Your task to perform on an android device: visit the assistant section in the google photos Image 0: 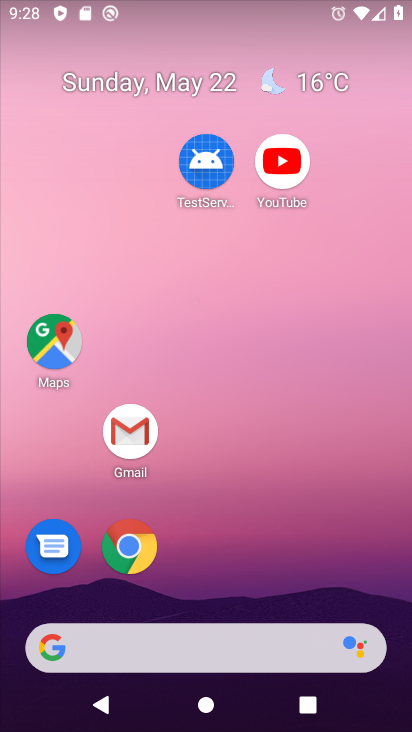
Step 0: click (184, 251)
Your task to perform on an android device: visit the assistant section in the google photos Image 1: 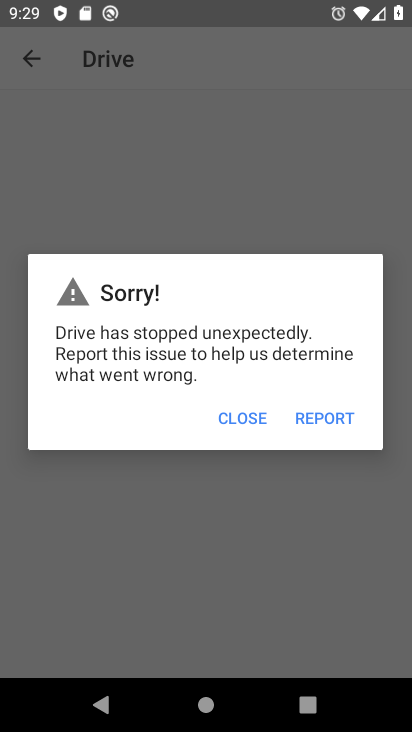
Step 1: click (238, 411)
Your task to perform on an android device: visit the assistant section in the google photos Image 2: 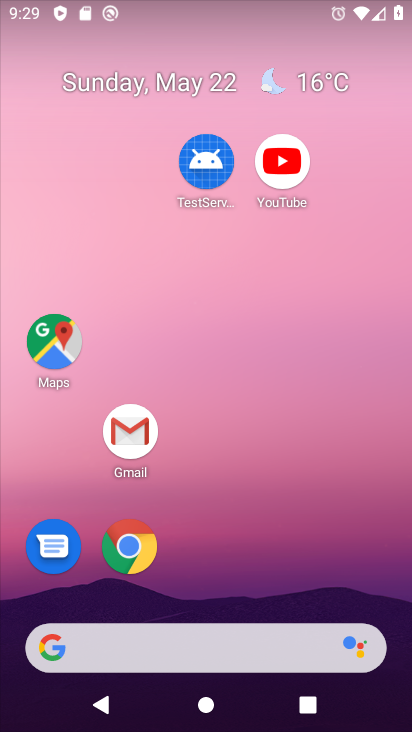
Step 2: drag from (275, 695) to (244, 133)
Your task to perform on an android device: visit the assistant section in the google photos Image 3: 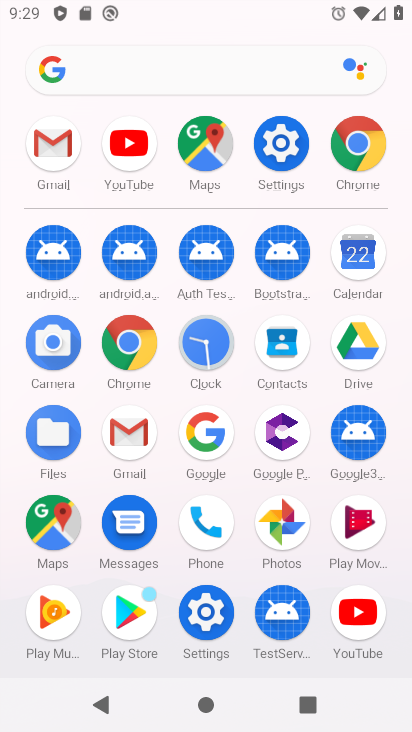
Step 3: click (283, 524)
Your task to perform on an android device: visit the assistant section in the google photos Image 4: 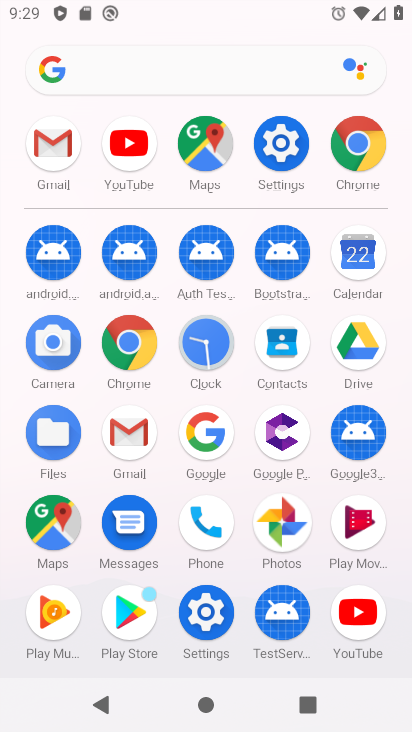
Step 4: click (283, 524)
Your task to perform on an android device: visit the assistant section in the google photos Image 5: 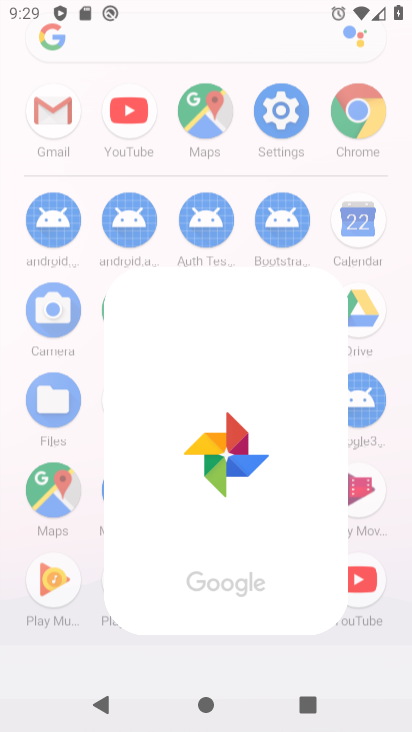
Step 5: click (283, 524)
Your task to perform on an android device: visit the assistant section in the google photos Image 6: 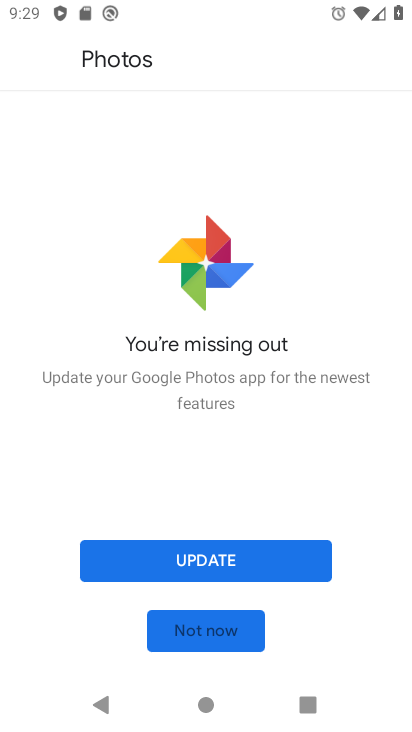
Step 6: click (220, 631)
Your task to perform on an android device: visit the assistant section in the google photos Image 7: 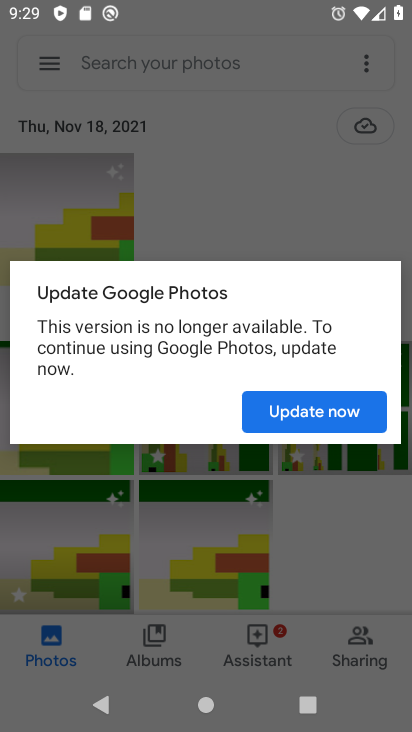
Step 7: click (332, 415)
Your task to perform on an android device: visit the assistant section in the google photos Image 8: 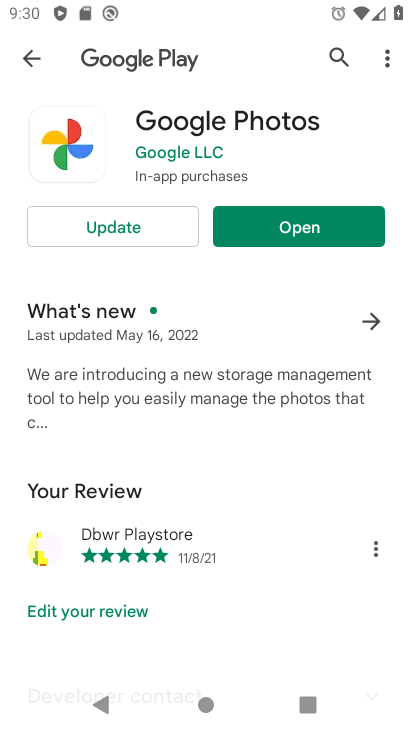
Step 8: click (20, 61)
Your task to perform on an android device: visit the assistant section in the google photos Image 9: 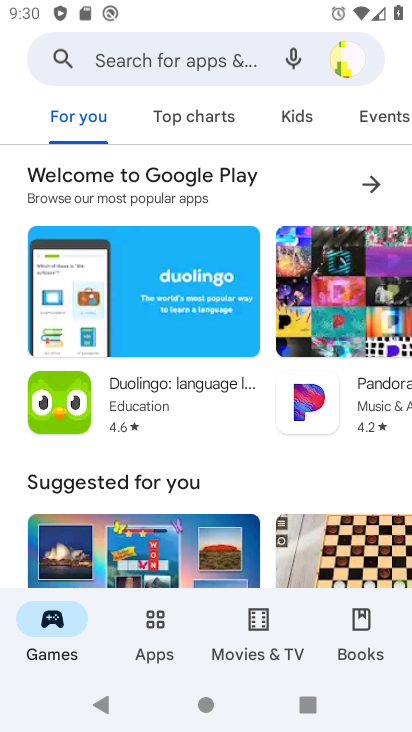
Step 9: press back button
Your task to perform on an android device: visit the assistant section in the google photos Image 10: 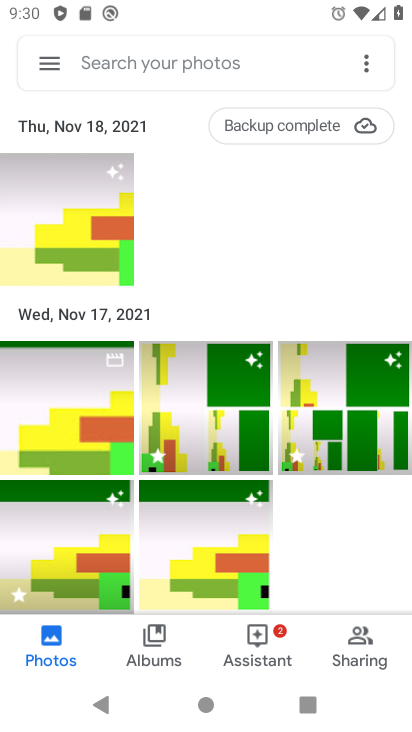
Step 10: click (255, 640)
Your task to perform on an android device: visit the assistant section in the google photos Image 11: 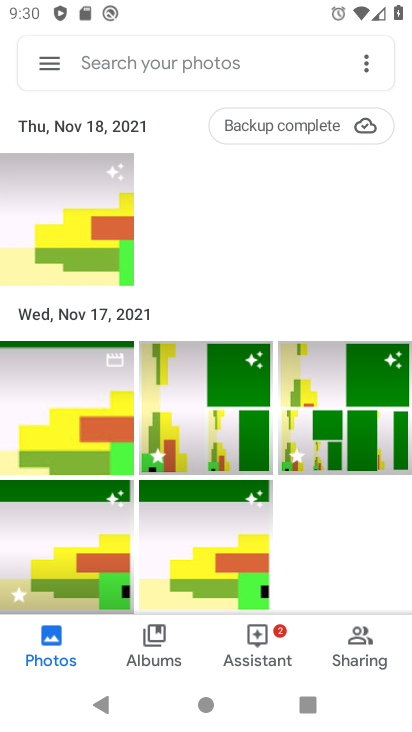
Step 11: click (263, 654)
Your task to perform on an android device: visit the assistant section in the google photos Image 12: 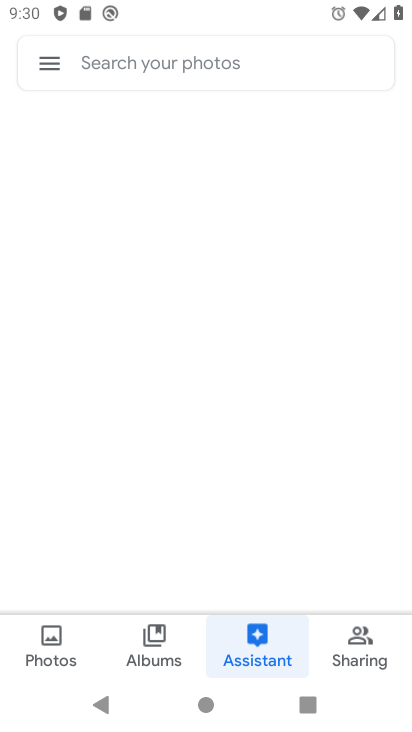
Step 12: click (219, 649)
Your task to perform on an android device: visit the assistant section in the google photos Image 13: 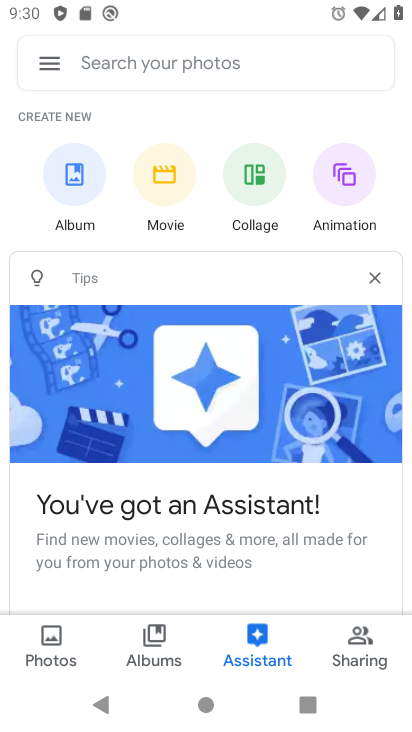
Step 13: task complete